Your task to perform on an android device: open wifi settings Image 0: 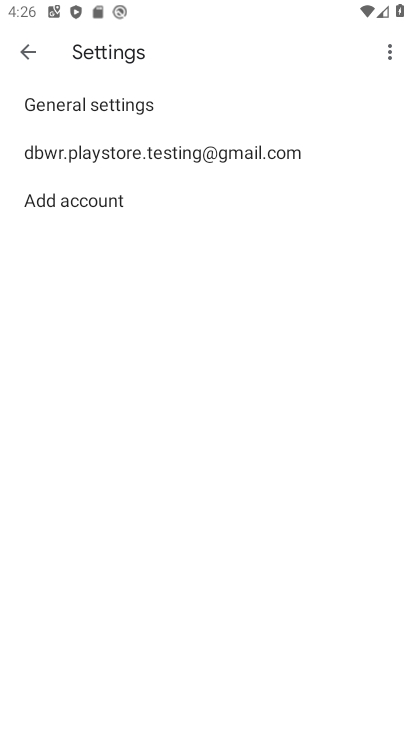
Step 0: press home button
Your task to perform on an android device: open wifi settings Image 1: 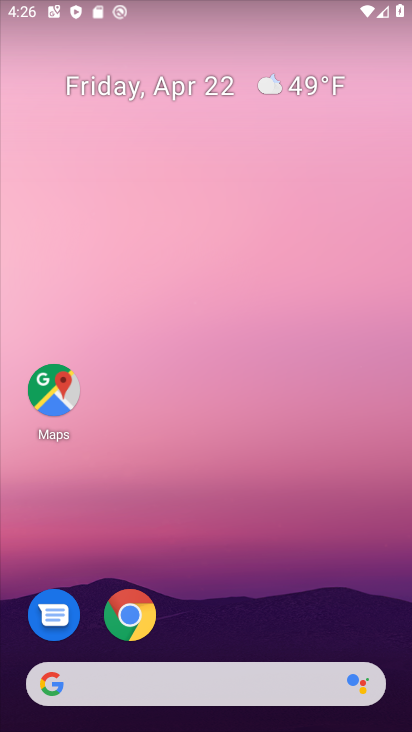
Step 1: drag from (236, 575) to (236, 152)
Your task to perform on an android device: open wifi settings Image 2: 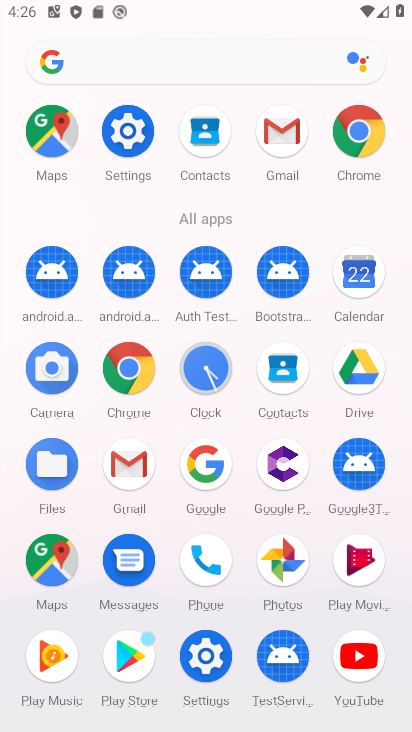
Step 2: click (131, 149)
Your task to perform on an android device: open wifi settings Image 3: 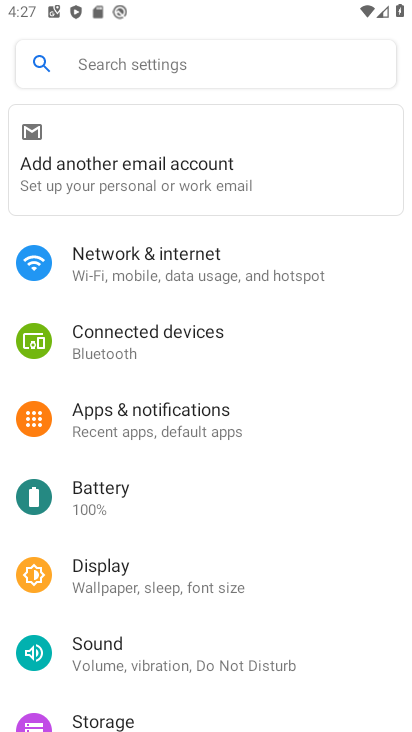
Step 3: click (166, 276)
Your task to perform on an android device: open wifi settings Image 4: 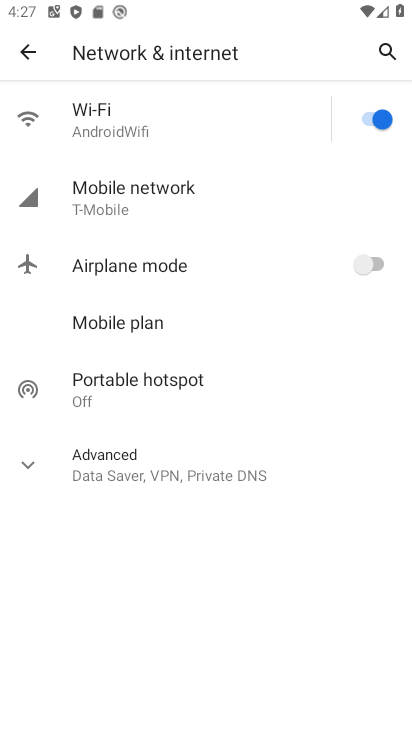
Step 4: click (123, 125)
Your task to perform on an android device: open wifi settings Image 5: 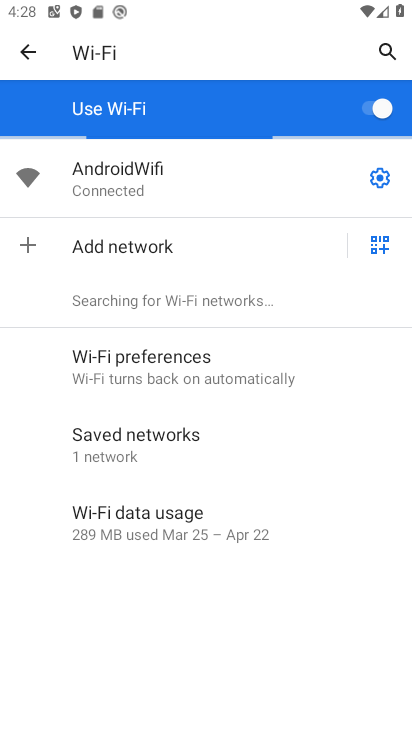
Step 5: task complete